Your task to perform on an android device: see creations saved in the google photos Image 0: 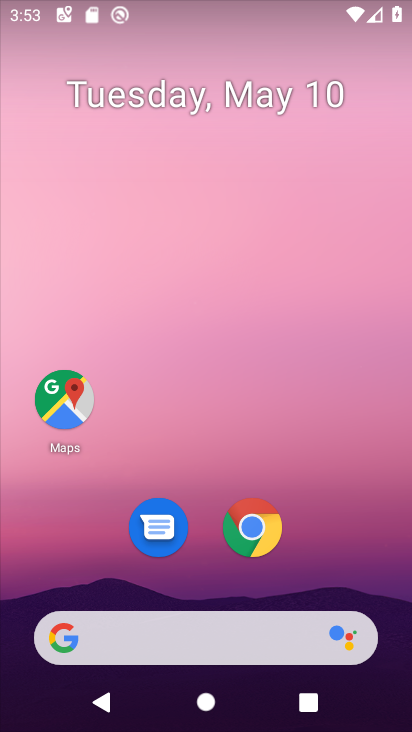
Step 0: drag from (394, 534) to (361, 238)
Your task to perform on an android device: see creations saved in the google photos Image 1: 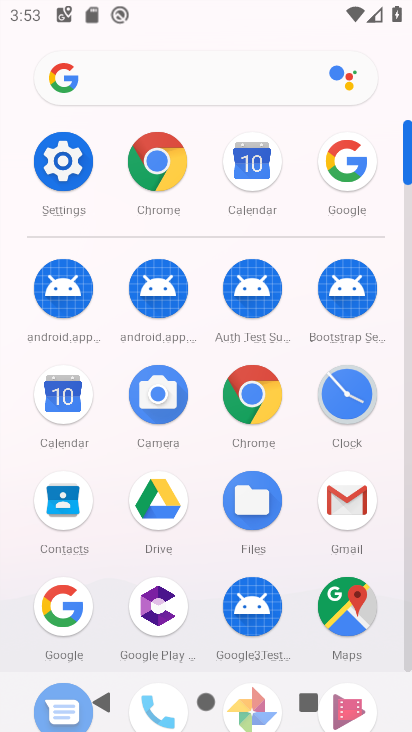
Step 1: drag from (311, 493) to (300, 259)
Your task to perform on an android device: see creations saved in the google photos Image 2: 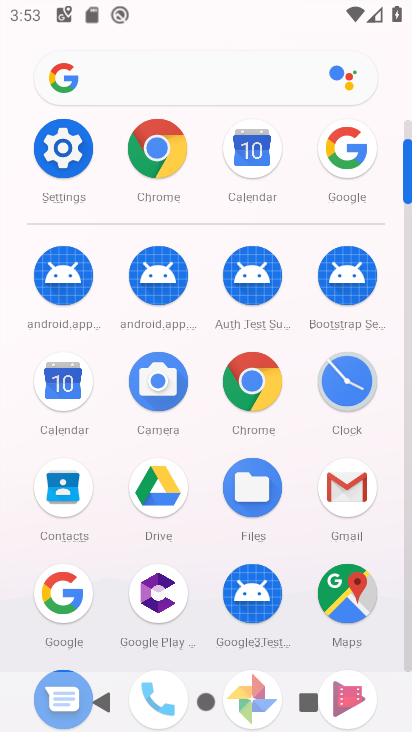
Step 2: drag from (301, 500) to (290, 353)
Your task to perform on an android device: see creations saved in the google photos Image 3: 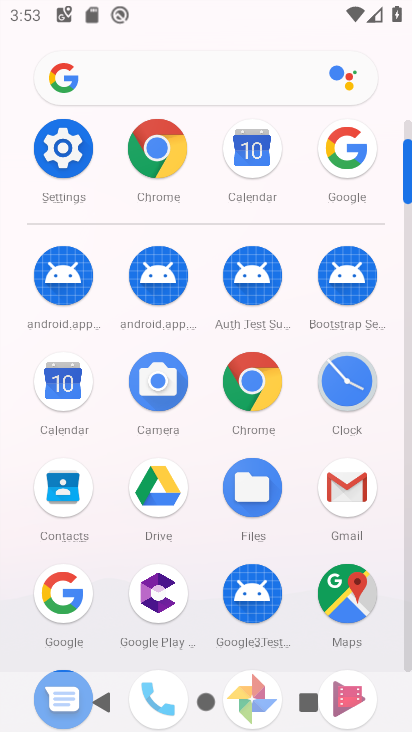
Step 3: drag from (299, 636) to (295, 400)
Your task to perform on an android device: see creations saved in the google photos Image 4: 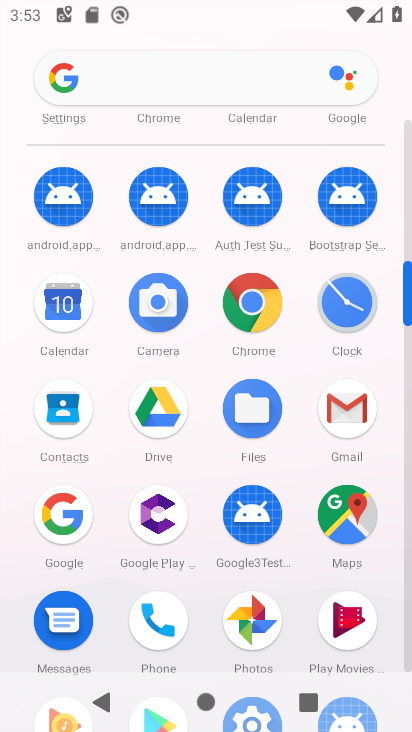
Step 4: click (253, 619)
Your task to perform on an android device: see creations saved in the google photos Image 5: 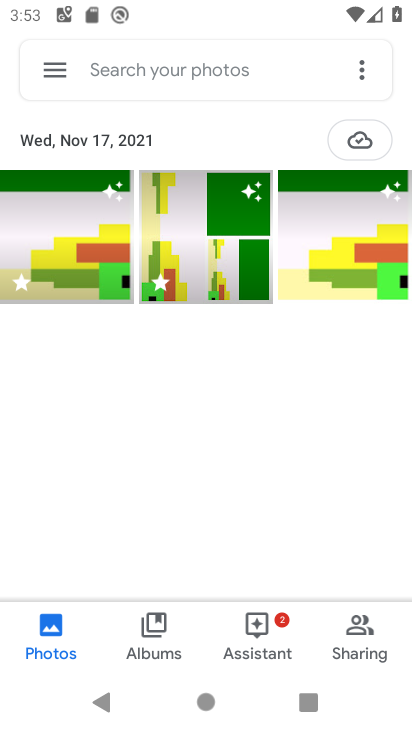
Step 5: click (72, 261)
Your task to perform on an android device: see creations saved in the google photos Image 6: 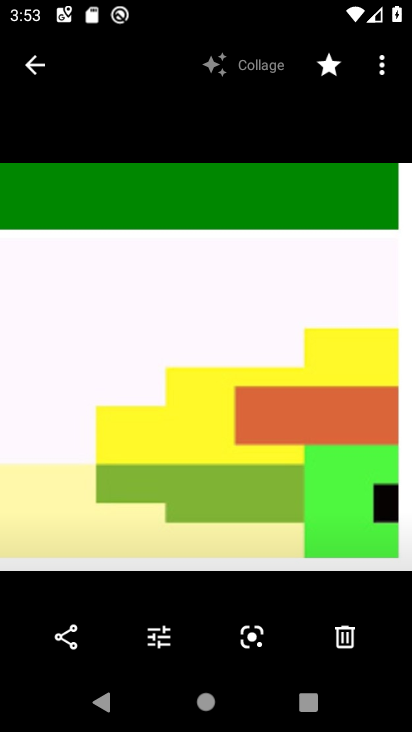
Step 6: click (40, 75)
Your task to perform on an android device: see creations saved in the google photos Image 7: 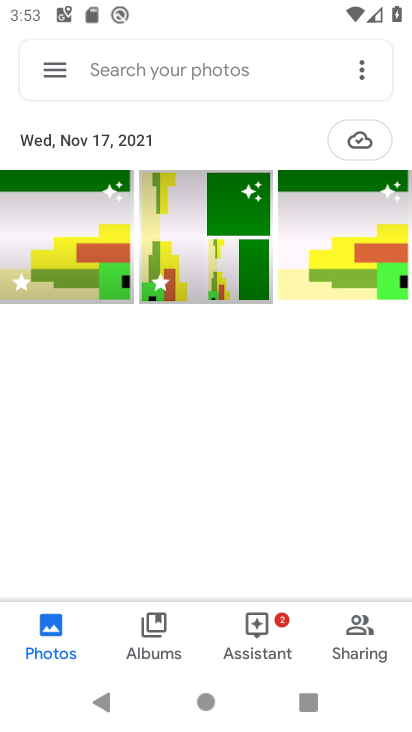
Step 7: click (165, 235)
Your task to perform on an android device: see creations saved in the google photos Image 8: 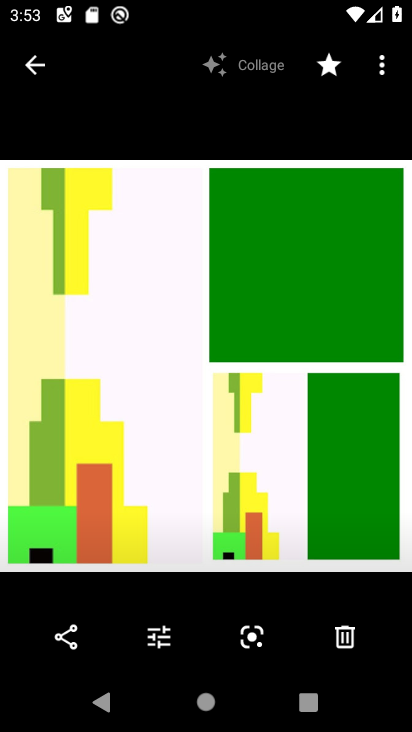
Step 8: click (32, 64)
Your task to perform on an android device: see creations saved in the google photos Image 9: 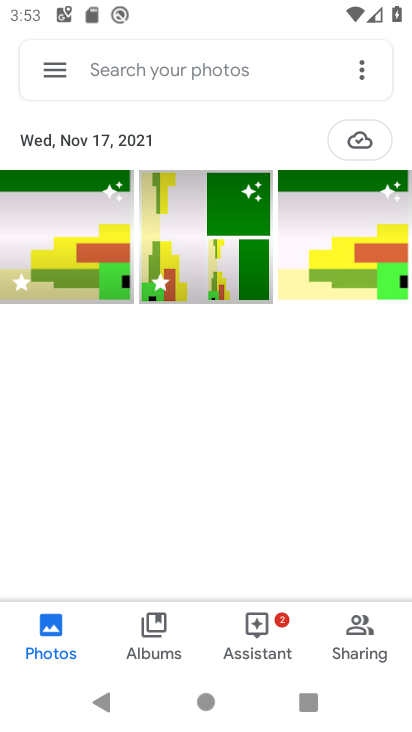
Step 9: click (354, 220)
Your task to perform on an android device: see creations saved in the google photos Image 10: 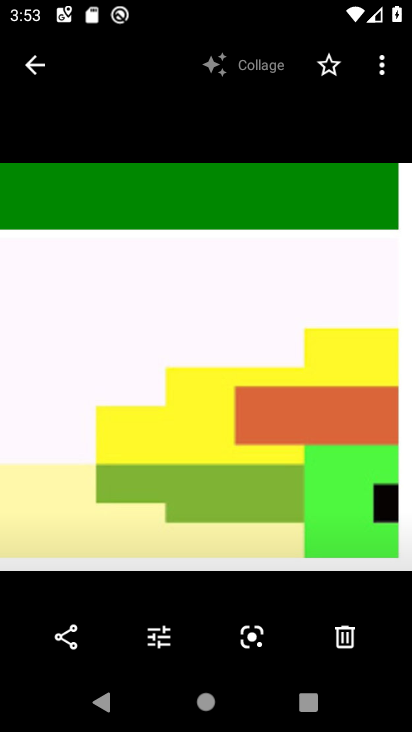
Step 10: click (34, 65)
Your task to perform on an android device: see creations saved in the google photos Image 11: 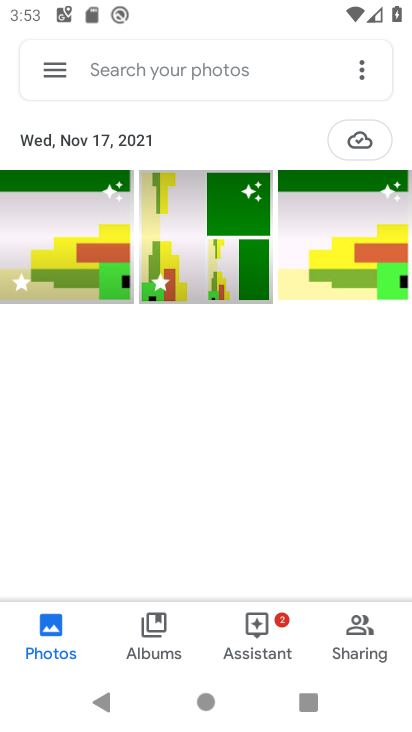
Step 11: task complete